Your task to perform on an android device: Go to Amazon Image 0: 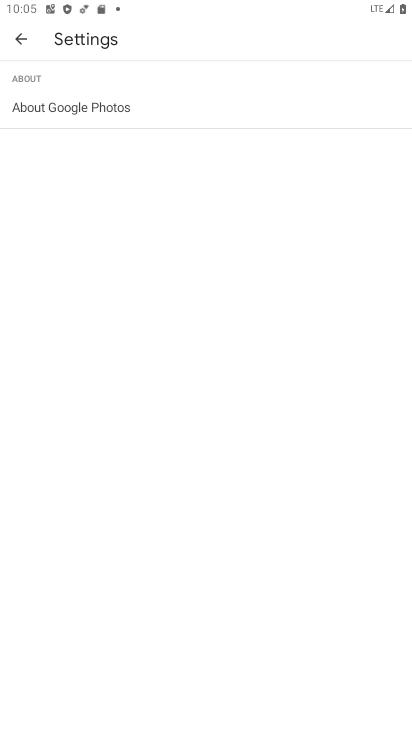
Step 0: press home button
Your task to perform on an android device: Go to Amazon Image 1: 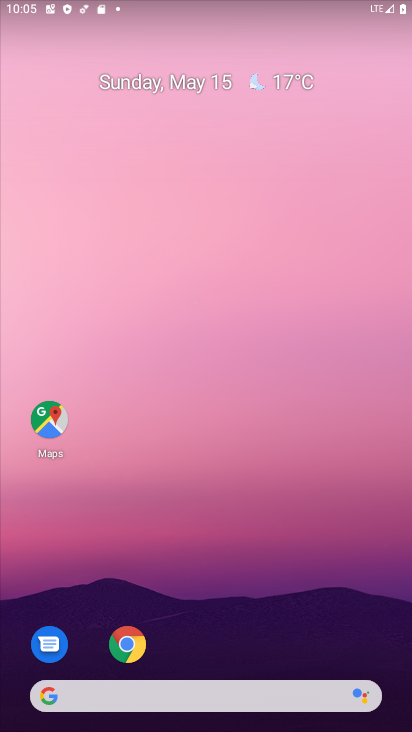
Step 1: drag from (209, 703) to (244, 171)
Your task to perform on an android device: Go to Amazon Image 2: 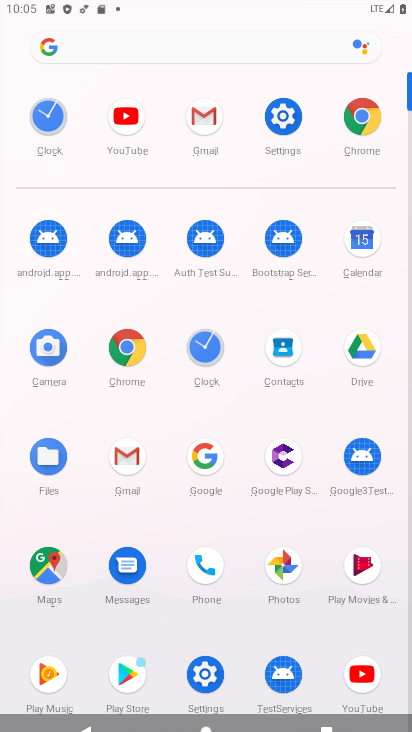
Step 2: click (390, 102)
Your task to perform on an android device: Go to Amazon Image 3: 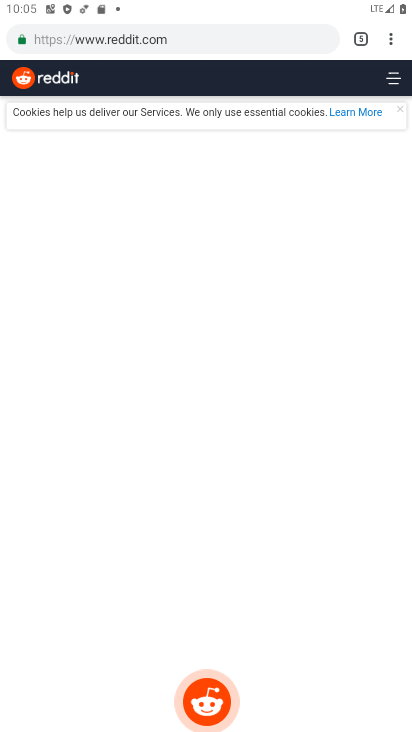
Step 3: click (360, 27)
Your task to perform on an android device: Go to Amazon Image 4: 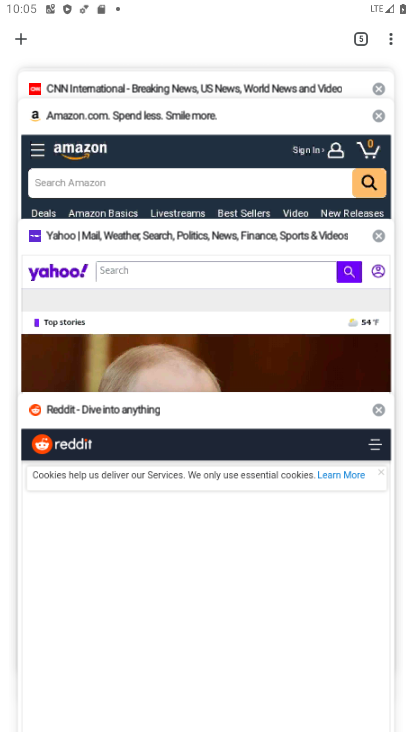
Step 4: click (31, 31)
Your task to perform on an android device: Go to Amazon Image 5: 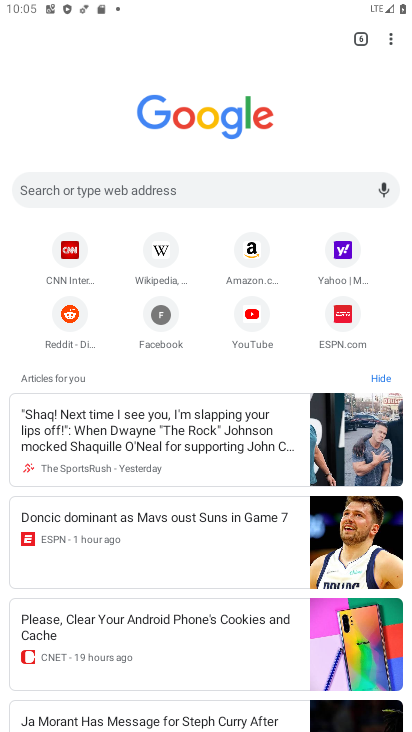
Step 5: click (248, 237)
Your task to perform on an android device: Go to Amazon Image 6: 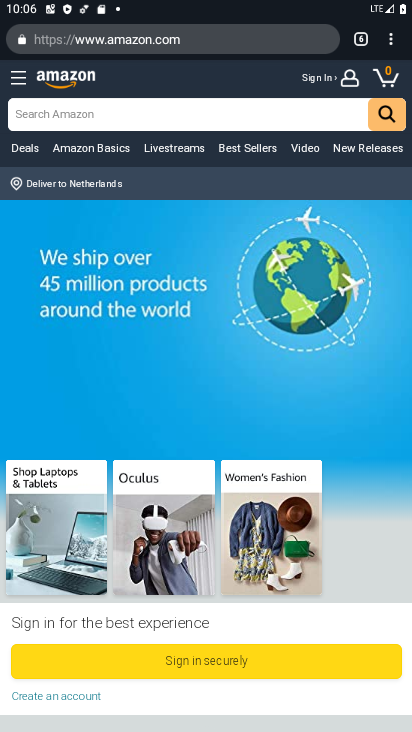
Step 6: task complete